Your task to perform on an android device: show emergency info Image 0: 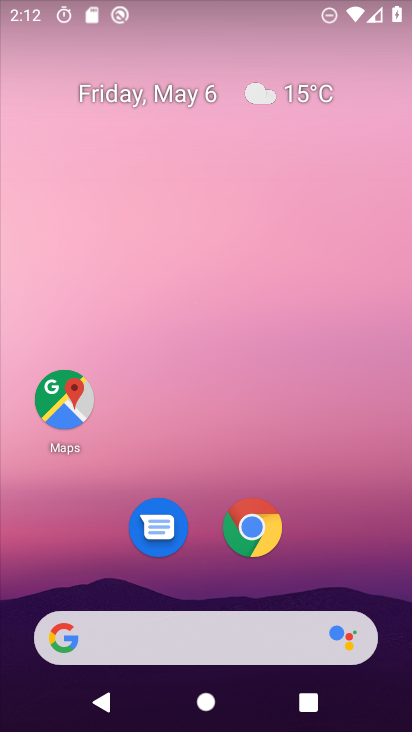
Step 0: drag from (328, 591) to (140, 141)
Your task to perform on an android device: show emergency info Image 1: 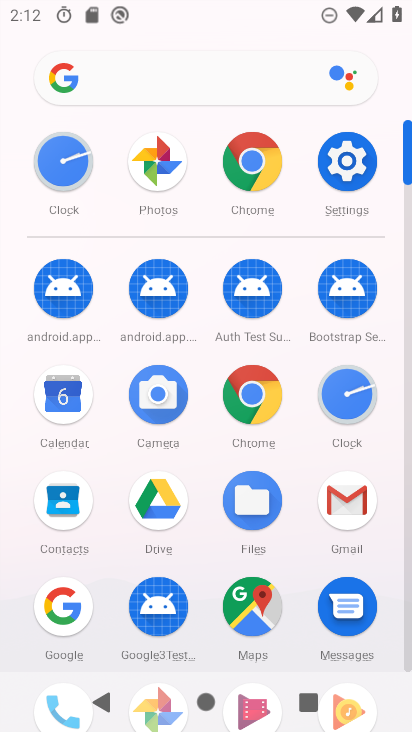
Step 1: click (338, 156)
Your task to perform on an android device: show emergency info Image 2: 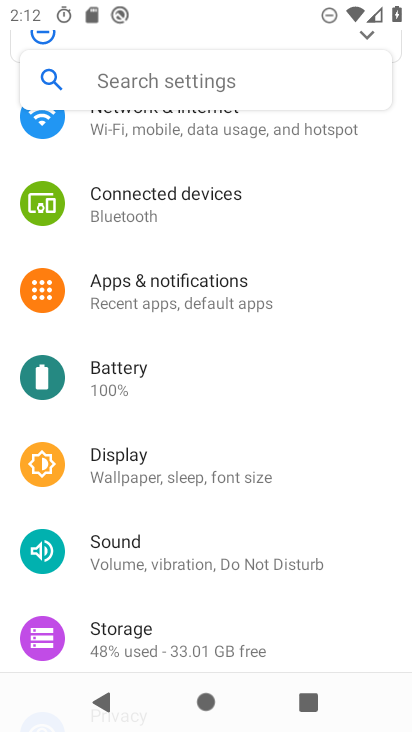
Step 2: drag from (206, 632) to (213, 201)
Your task to perform on an android device: show emergency info Image 3: 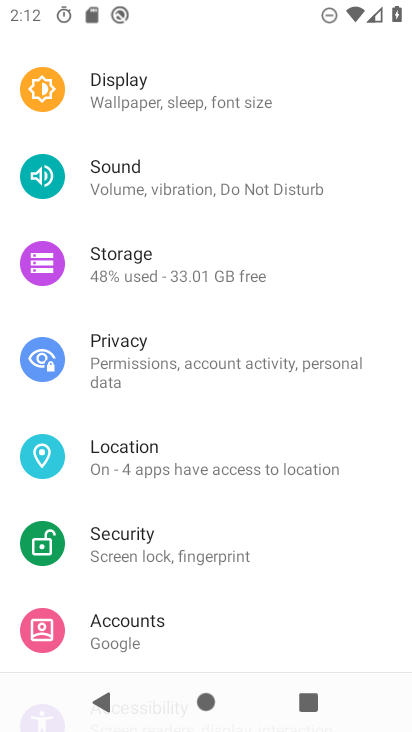
Step 3: drag from (136, 614) to (134, 146)
Your task to perform on an android device: show emergency info Image 4: 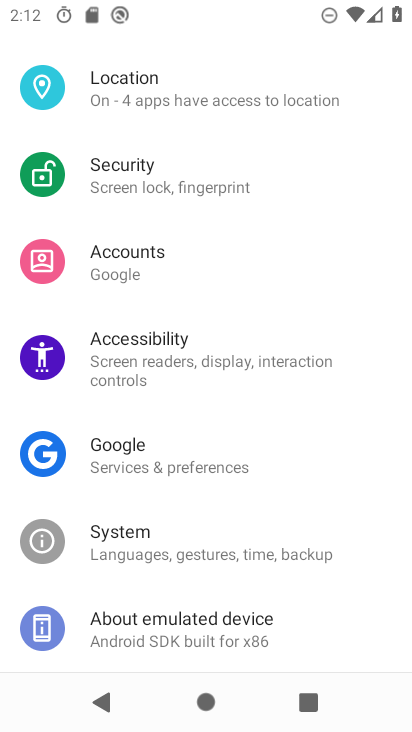
Step 4: click (135, 628)
Your task to perform on an android device: show emergency info Image 5: 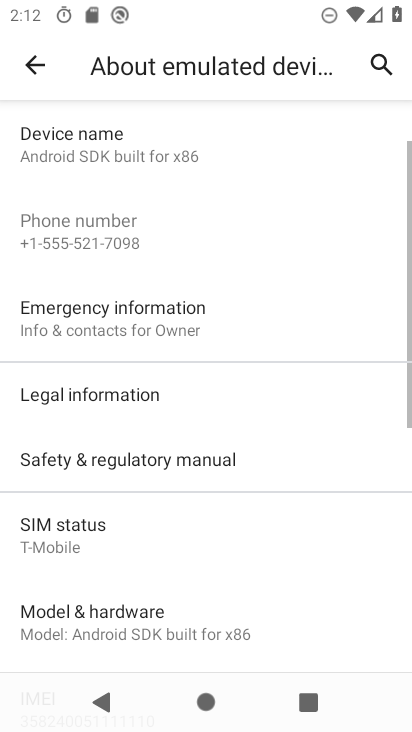
Step 5: click (88, 315)
Your task to perform on an android device: show emergency info Image 6: 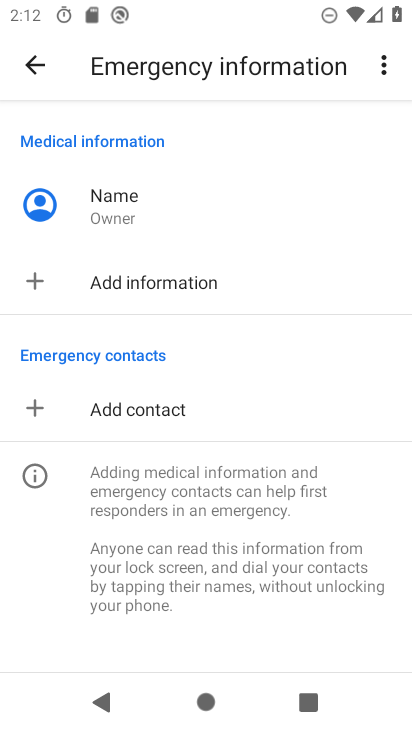
Step 6: task complete